Your task to perform on an android device: Open privacy settings Image 0: 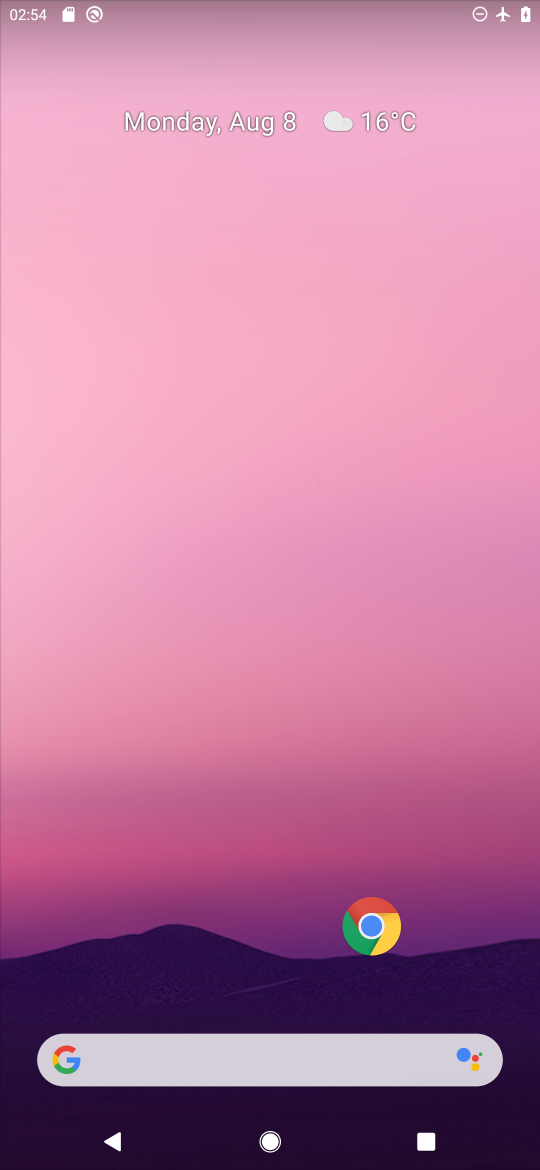
Step 0: drag from (317, 619) to (512, 1)
Your task to perform on an android device: Open privacy settings Image 1: 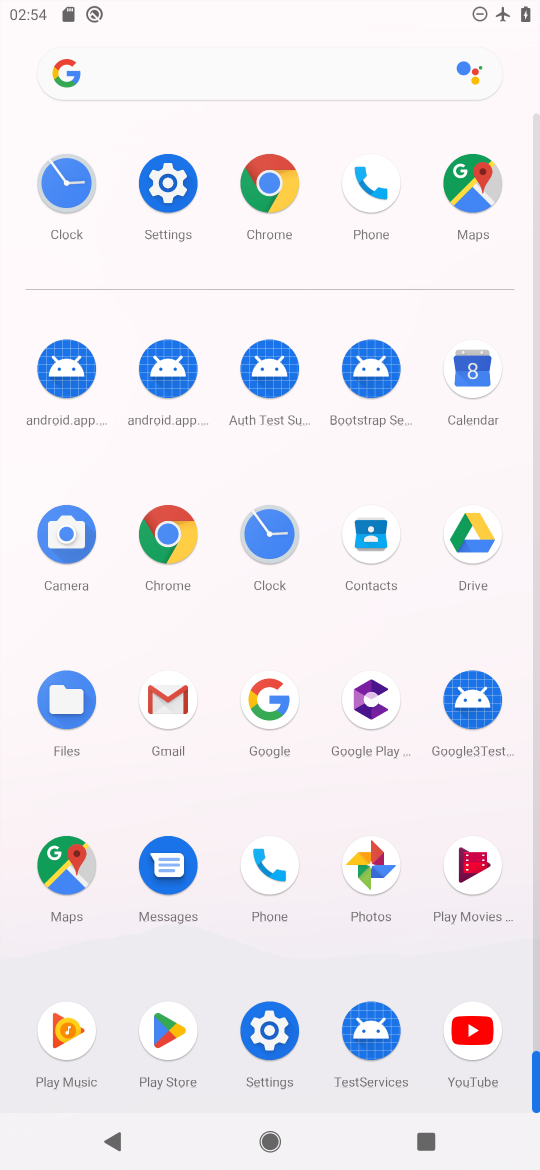
Step 1: click (162, 191)
Your task to perform on an android device: Open privacy settings Image 2: 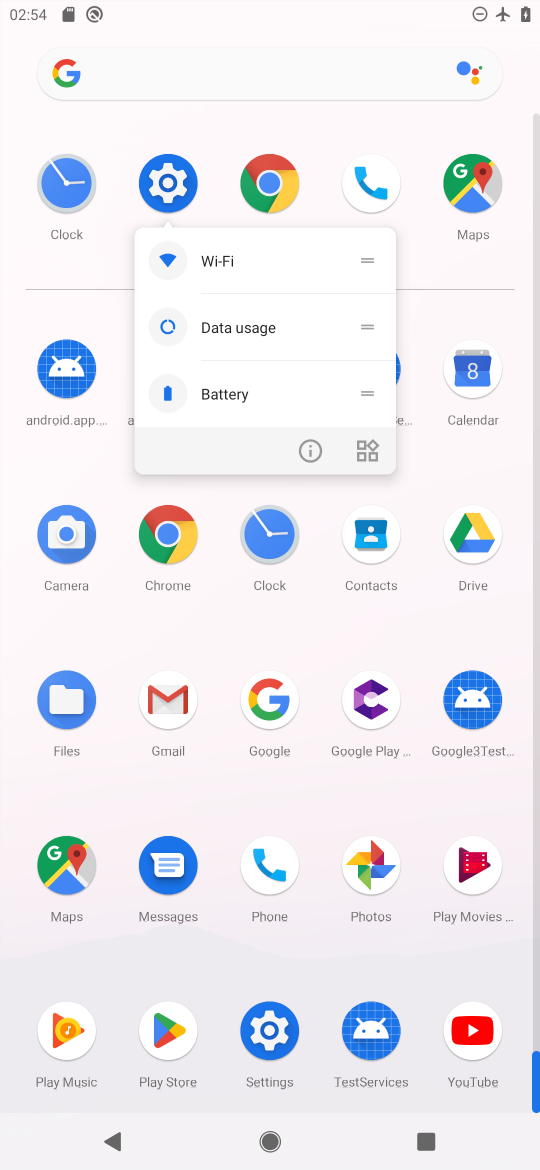
Step 2: click (183, 181)
Your task to perform on an android device: Open privacy settings Image 3: 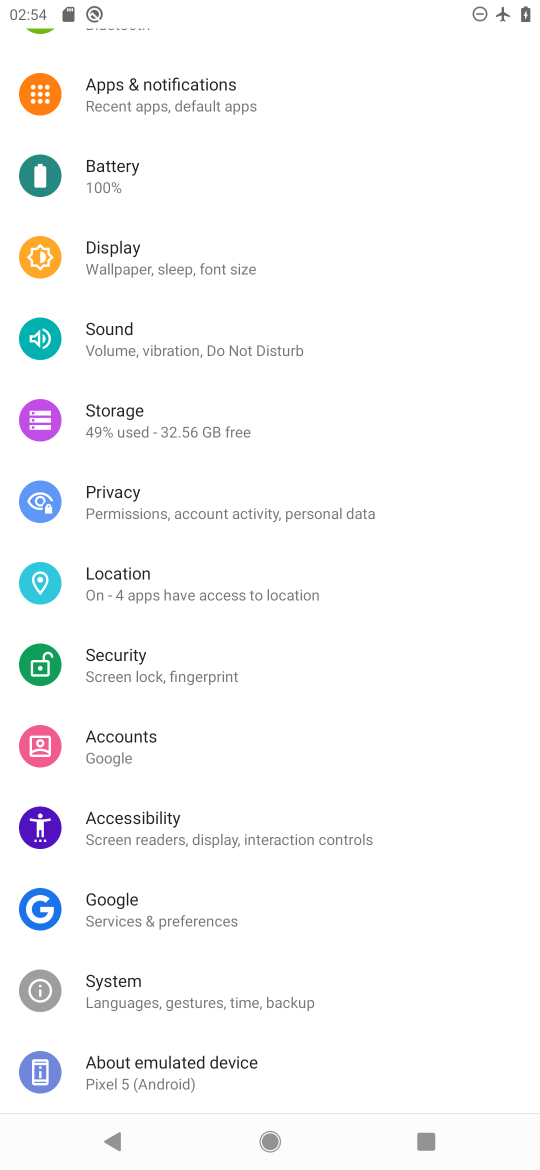
Step 3: click (166, 497)
Your task to perform on an android device: Open privacy settings Image 4: 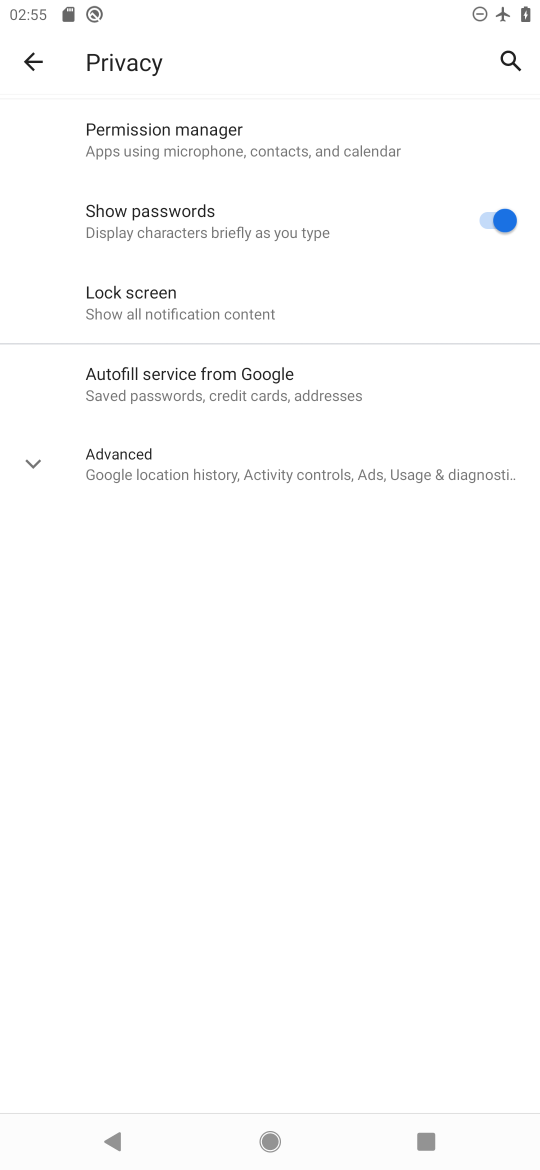
Step 4: task complete